Your task to perform on an android device: change notification settings in the gmail app Image 0: 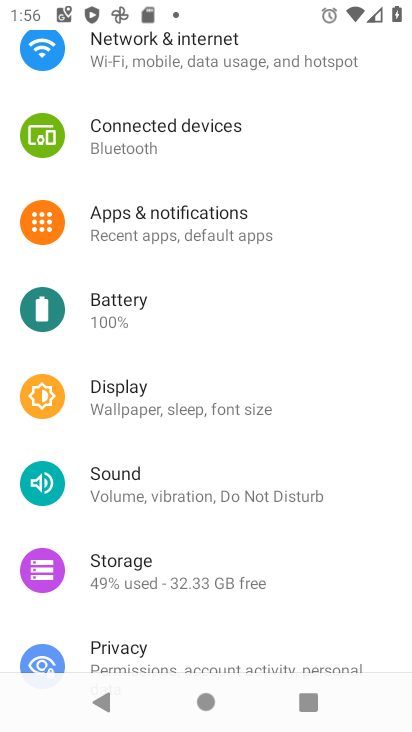
Step 0: press home button
Your task to perform on an android device: change notification settings in the gmail app Image 1: 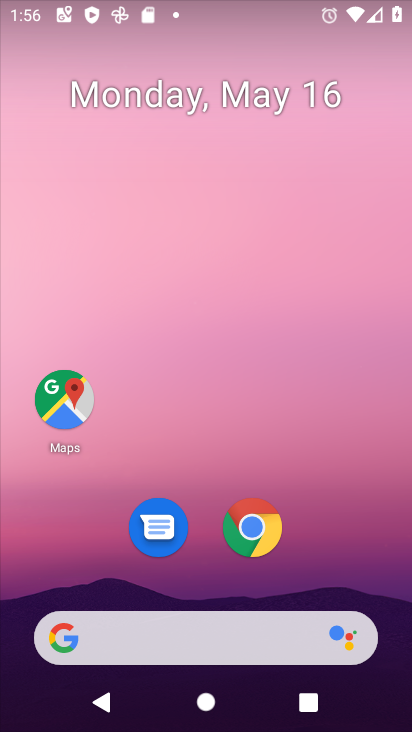
Step 1: drag from (344, 544) to (367, 195)
Your task to perform on an android device: change notification settings in the gmail app Image 2: 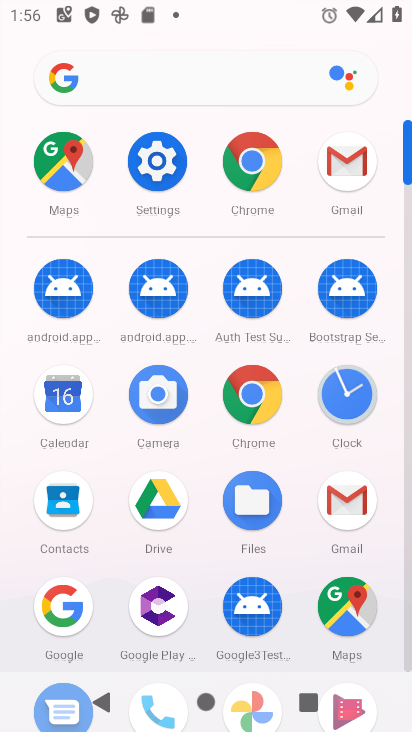
Step 2: click (368, 181)
Your task to perform on an android device: change notification settings in the gmail app Image 3: 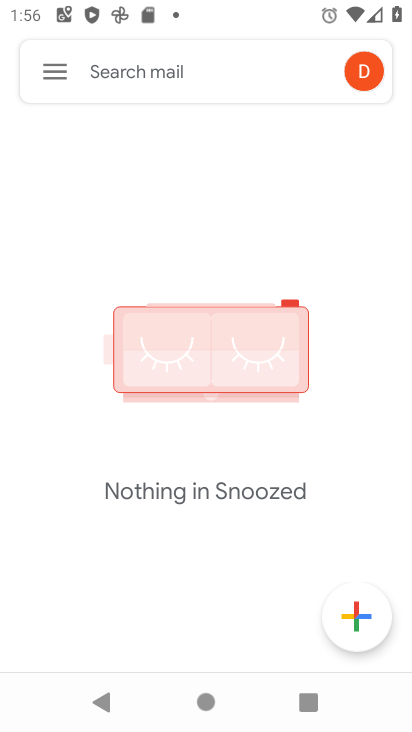
Step 3: click (56, 91)
Your task to perform on an android device: change notification settings in the gmail app Image 4: 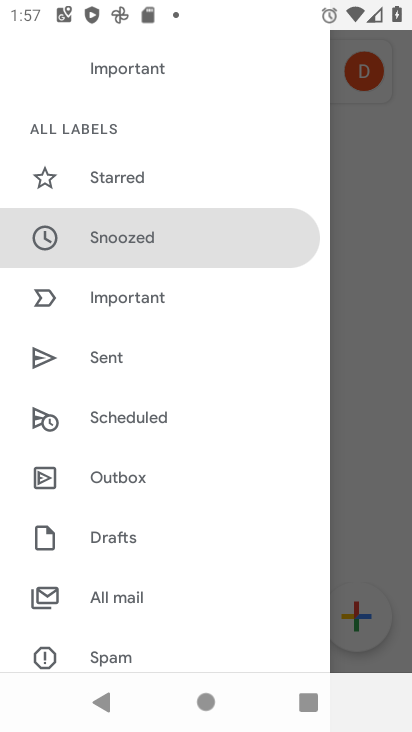
Step 4: drag from (79, 592) to (134, 297)
Your task to perform on an android device: change notification settings in the gmail app Image 5: 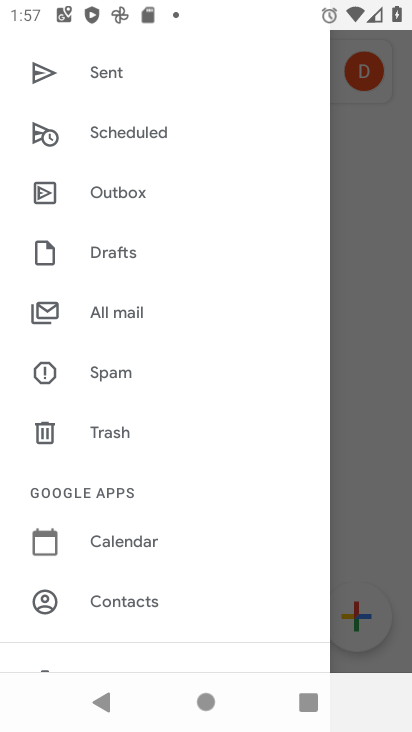
Step 5: drag from (136, 619) to (188, 312)
Your task to perform on an android device: change notification settings in the gmail app Image 6: 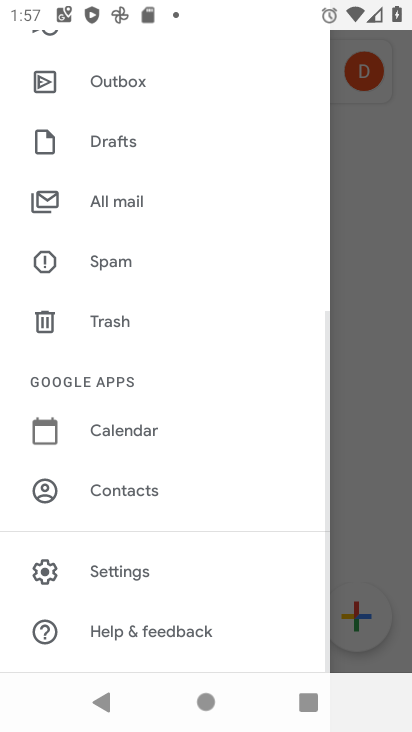
Step 6: click (177, 553)
Your task to perform on an android device: change notification settings in the gmail app Image 7: 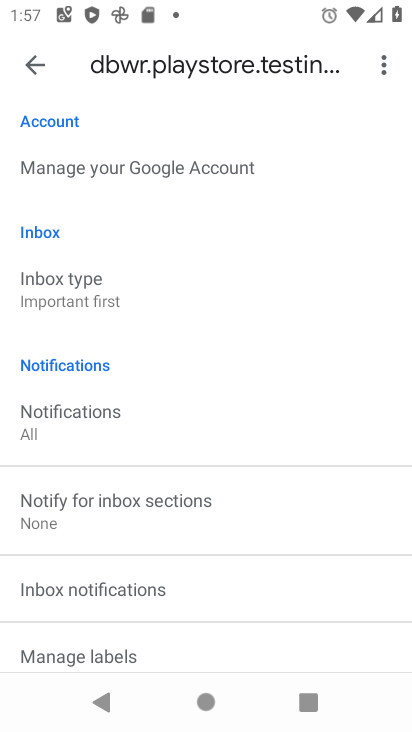
Step 7: drag from (137, 523) to (191, 180)
Your task to perform on an android device: change notification settings in the gmail app Image 8: 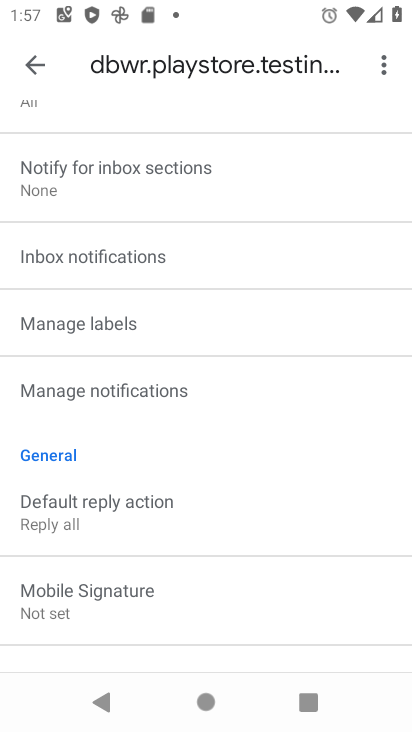
Step 8: click (199, 401)
Your task to perform on an android device: change notification settings in the gmail app Image 9: 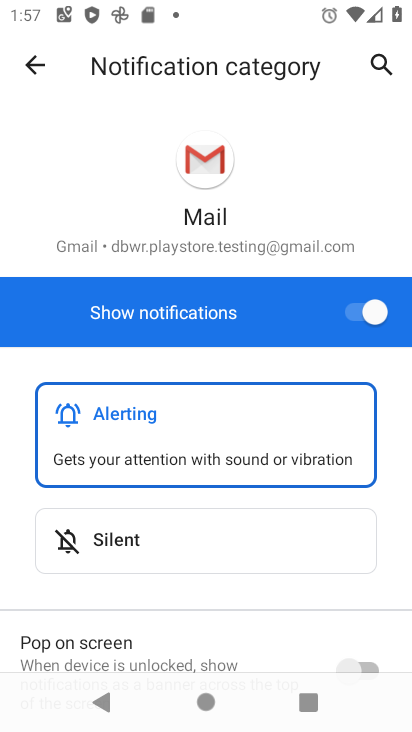
Step 9: click (317, 326)
Your task to perform on an android device: change notification settings in the gmail app Image 10: 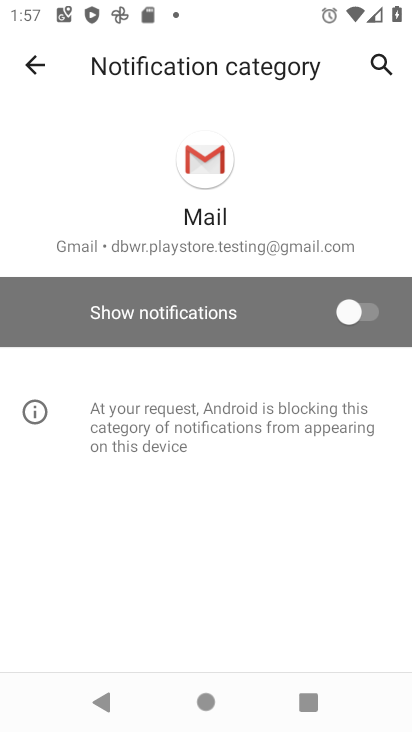
Step 10: task complete